Your task to perform on an android device: turn on airplane mode Image 0: 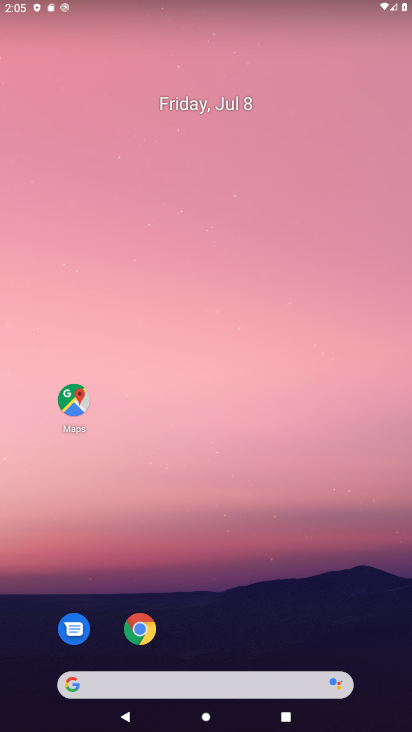
Step 0: drag from (47, 683) to (211, 149)
Your task to perform on an android device: turn on airplane mode Image 1: 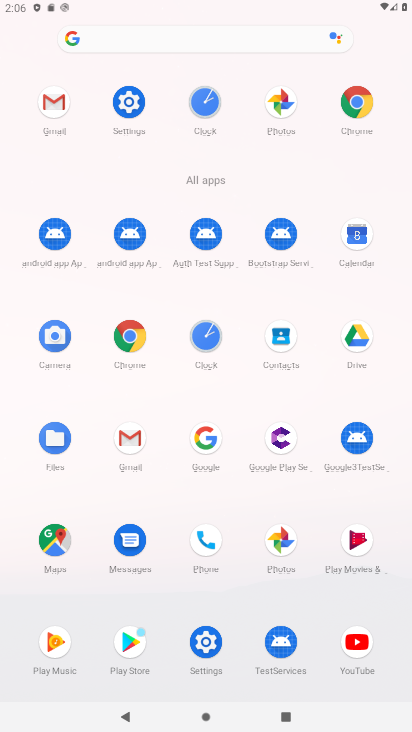
Step 1: click (203, 654)
Your task to perform on an android device: turn on airplane mode Image 2: 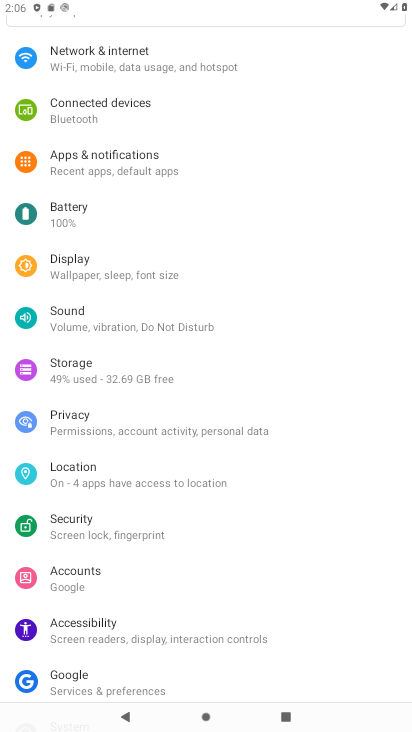
Step 2: click (138, 45)
Your task to perform on an android device: turn on airplane mode Image 3: 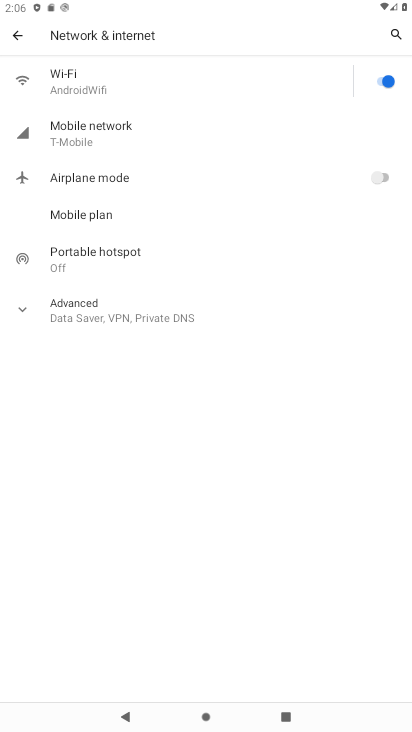
Step 3: click (375, 184)
Your task to perform on an android device: turn on airplane mode Image 4: 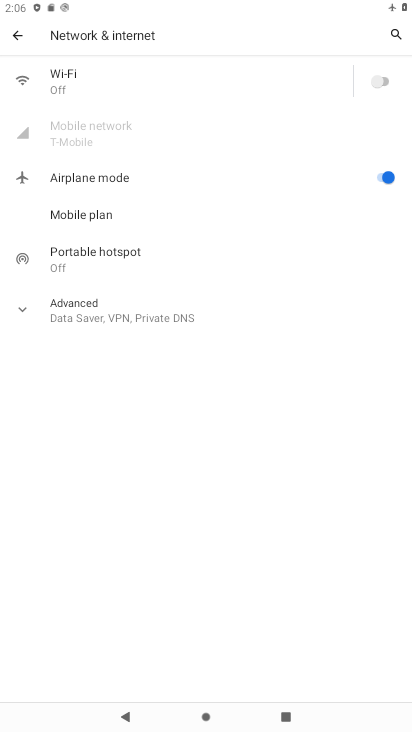
Step 4: task complete